Your task to perform on an android device: turn on priority inbox in the gmail app Image 0: 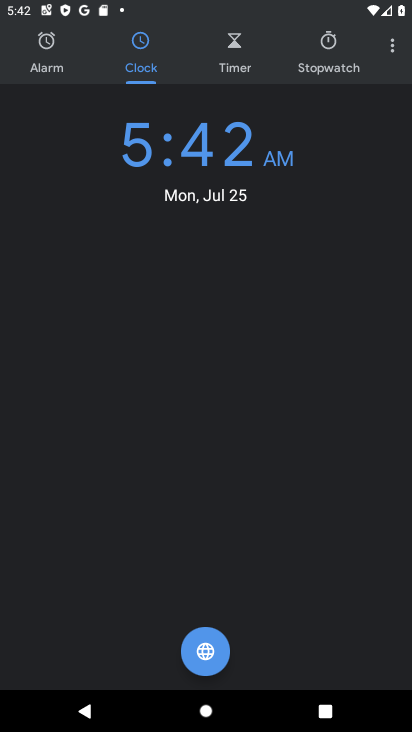
Step 0: press home button
Your task to perform on an android device: turn on priority inbox in the gmail app Image 1: 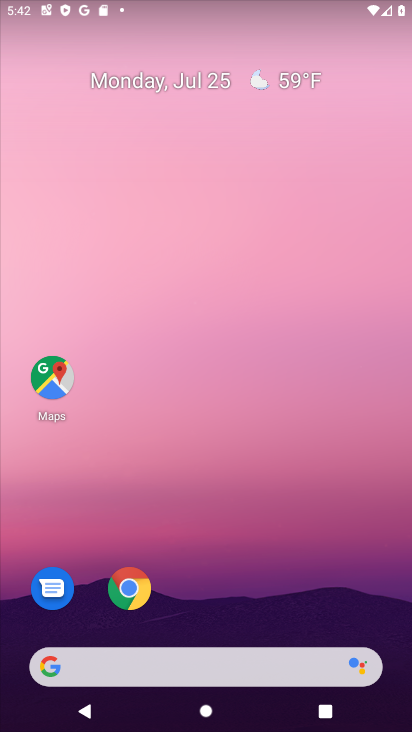
Step 1: drag from (265, 504) to (335, 115)
Your task to perform on an android device: turn on priority inbox in the gmail app Image 2: 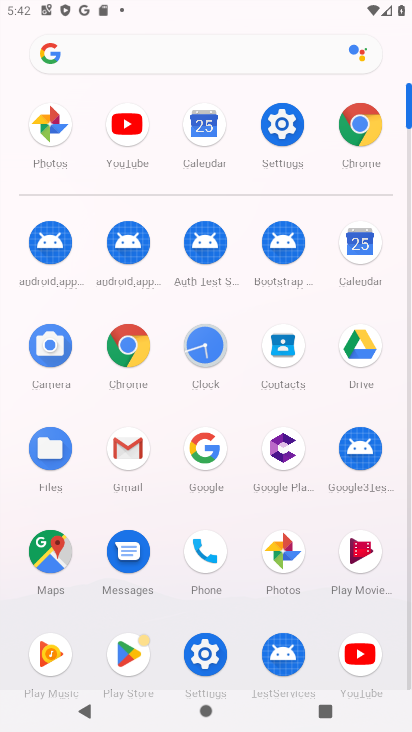
Step 2: click (122, 450)
Your task to perform on an android device: turn on priority inbox in the gmail app Image 3: 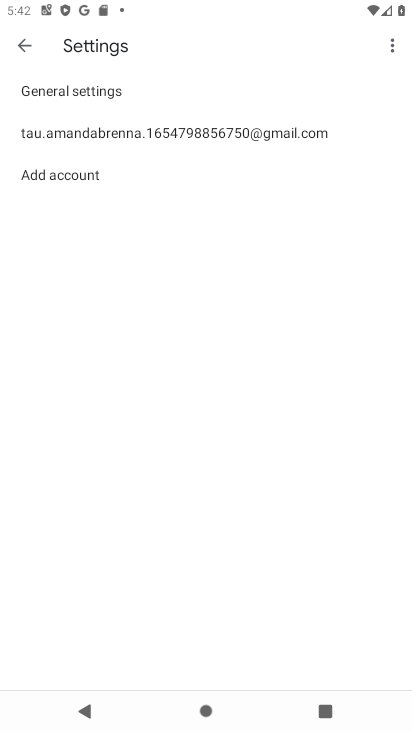
Step 3: task complete